Your task to perform on an android device: set the stopwatch Image 0: 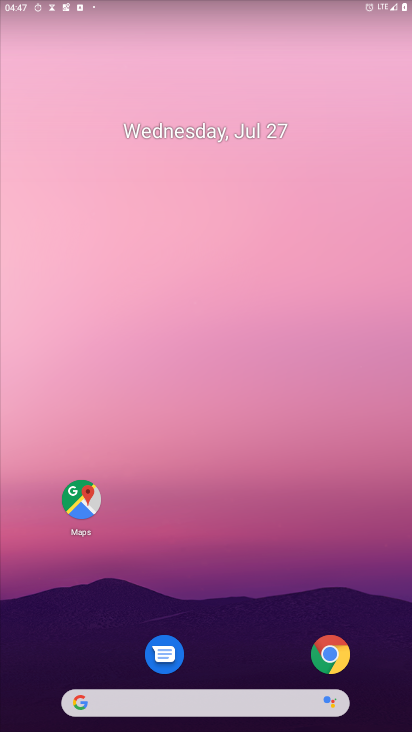
Step 0: drag from (259, 656) to (264, 52)
Your task to perform on an android device: set the stopwatch Image 1: 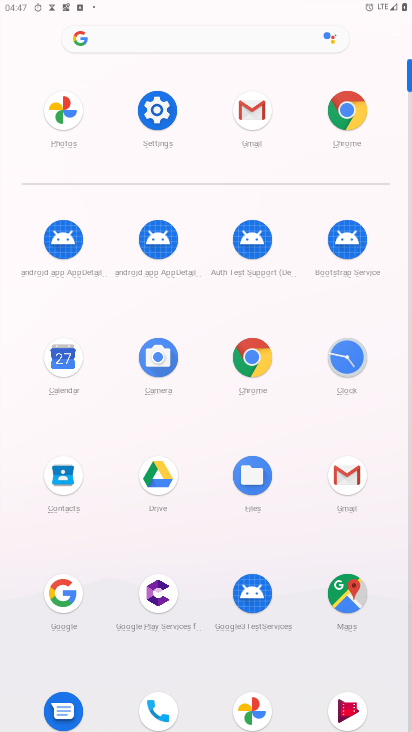
Step 1: click (355, 358)
Your task to perform on an android device: set the stopwatch Image 2: 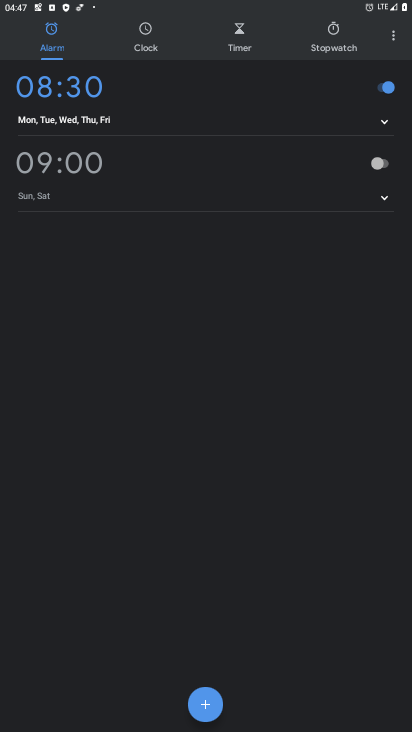
Step 2: click (326, 42)
Your task to perform on an android device: set the stopwatch Image 3: 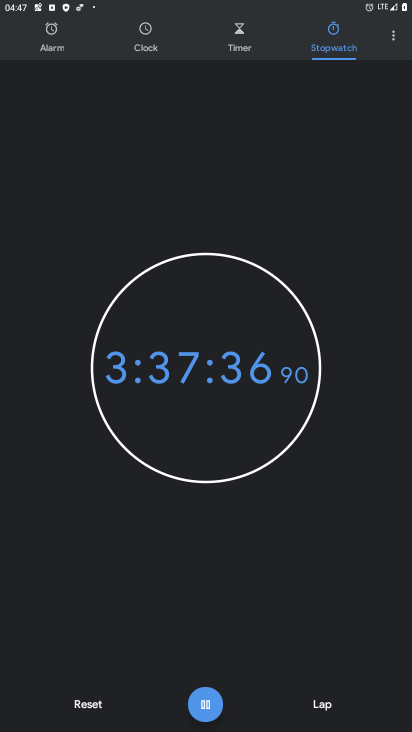
Step 3: task complete